Your task to perform on an android device: See recent photos Image 0: 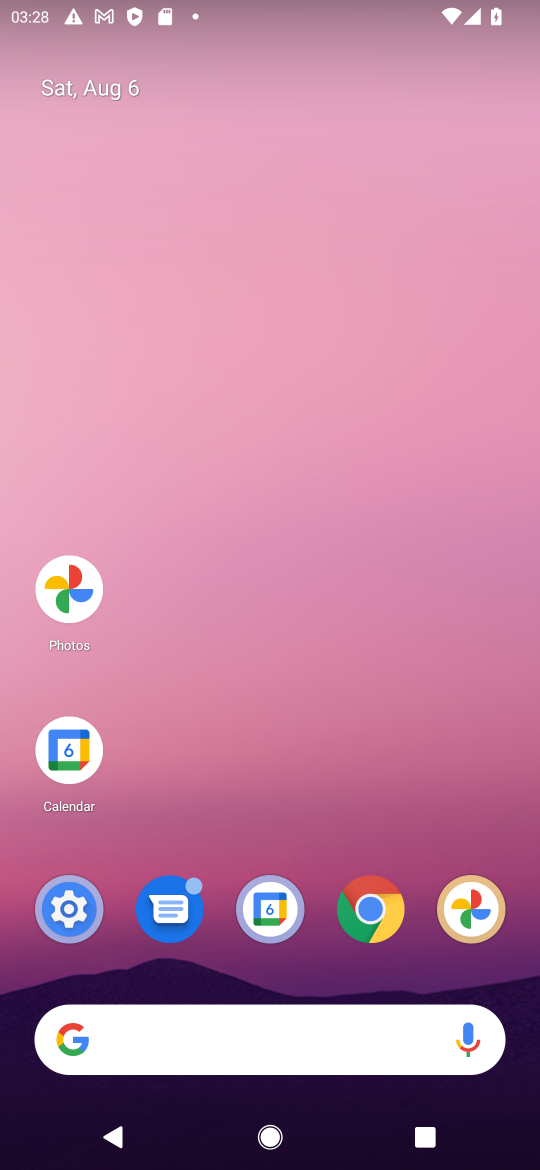
Step 0: click (466, 903)
Your task to perform on an android device: See recent photos Image 1: 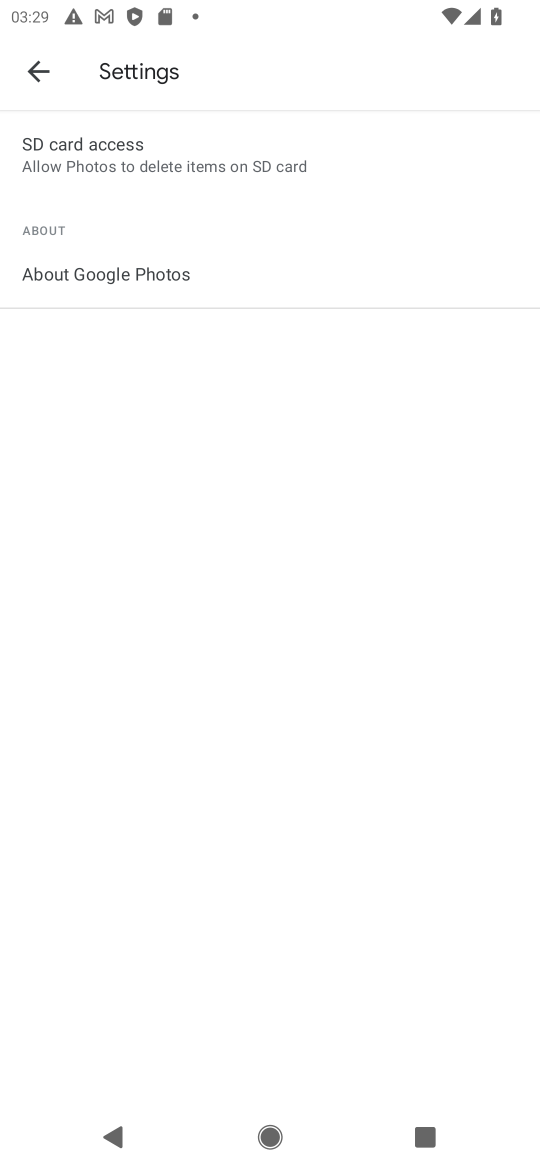
Step 1: click (38, 74)
Your task to perform on an android device: See recent photos Image 2: 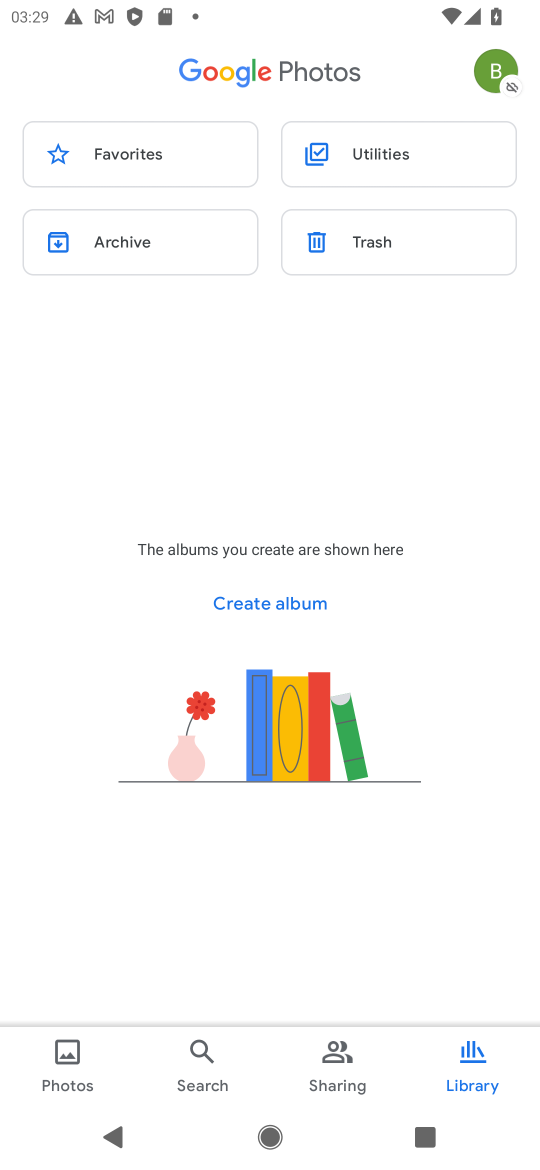
Step 2: click (56, 1064)
Your task to perform on an android device: See recent photos Image 3: 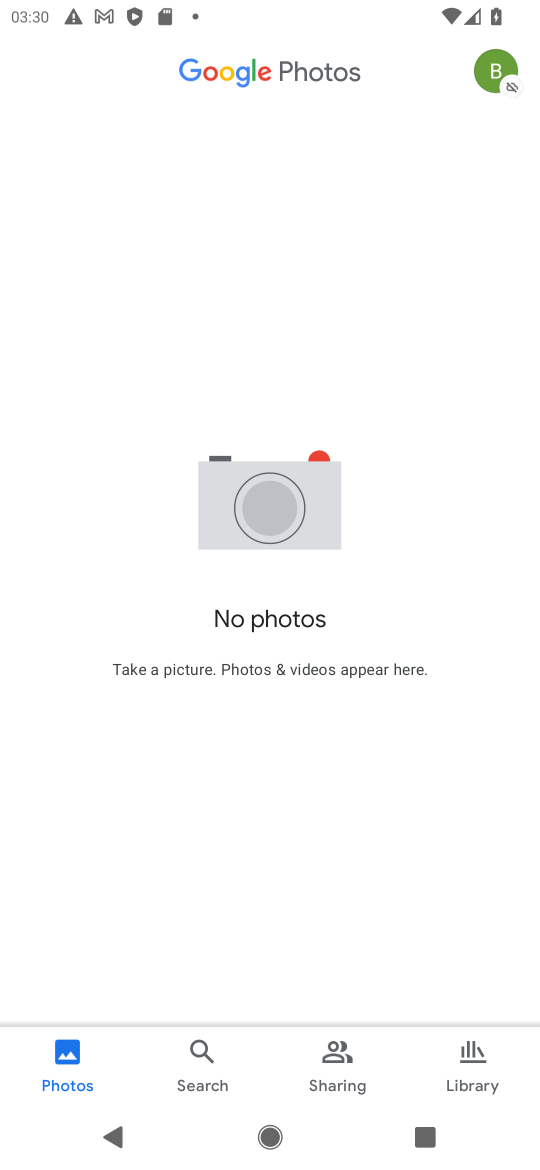
Step 3: task complete